Your task to perform on an android device: turn off airplane mode Image 0: 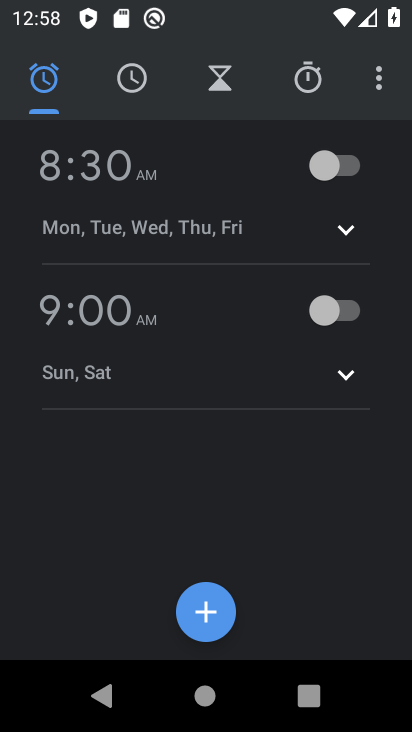
Step 0: press back button
Your task to perform on an android device: turn off airplane mode Image 1: 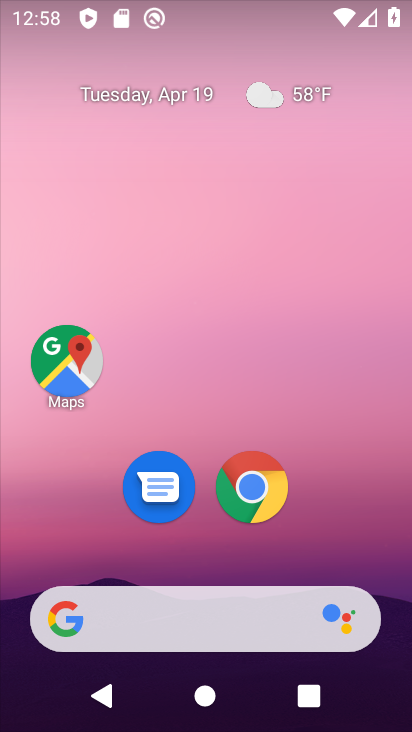
Step 1: drag from (207, 722) to (217, 167)
Your task to perform on an android device: turn off airplane mode Image 2: 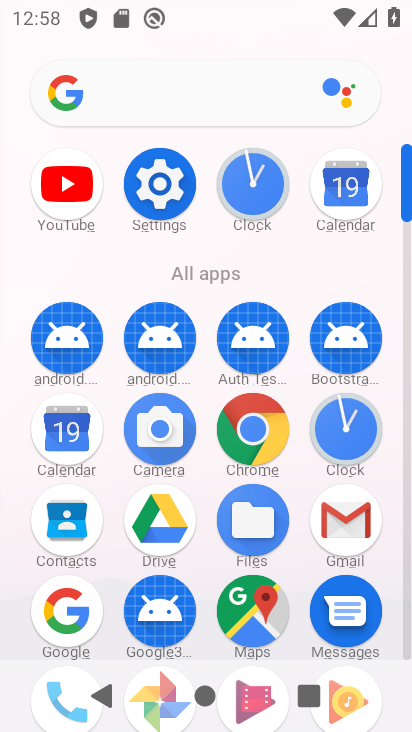
Step 2: click (154, 192)
Your task to perform on an android device: turn off airplane mode Image 3: 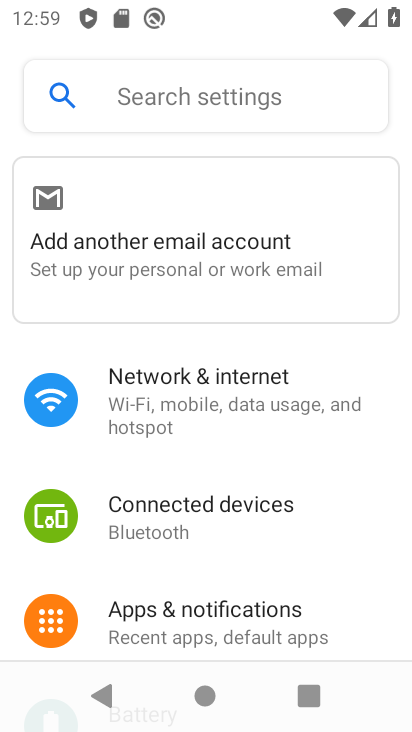
Step 3: click (215, 380)
Your task to perform on an android device: turn off airplane mode Image 4: 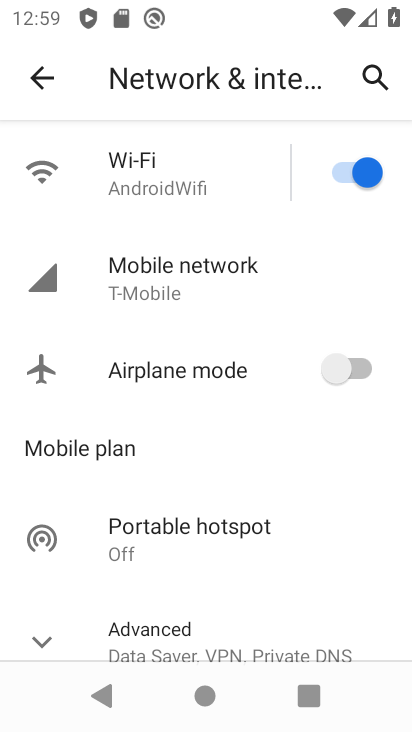
Step 4: task complete